Your task to perform on an android device: Open settings on Google Maps Image 0: 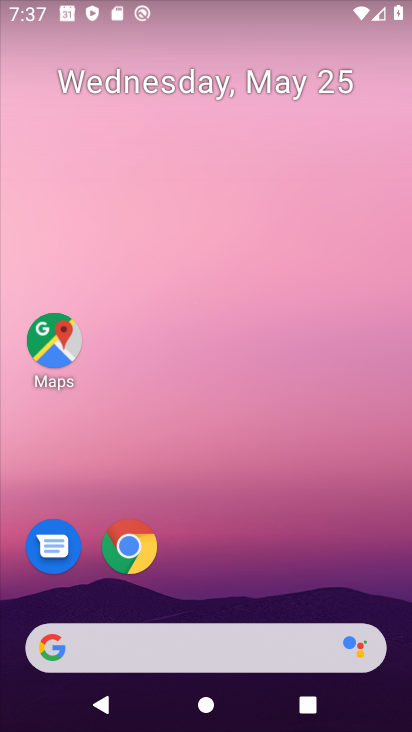
Step 0: drag from (390, 596) to (396, 291)
Your task to perform on an android device: Open settings on Google Maps Image 1: 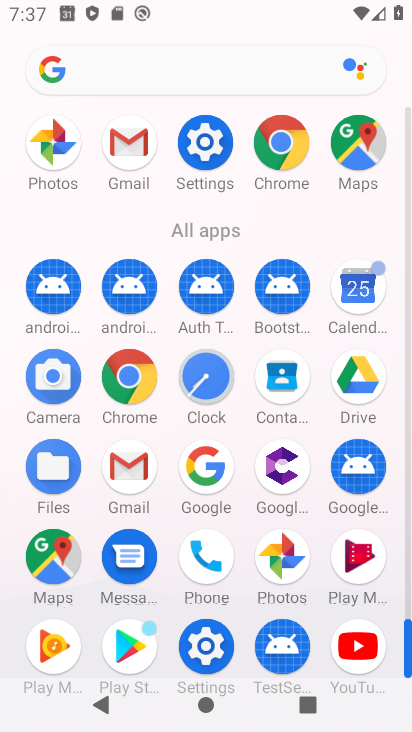
Step 1: click (64, 582)
Your task to perform on an android device: Open settings on Google Maps Image 2: 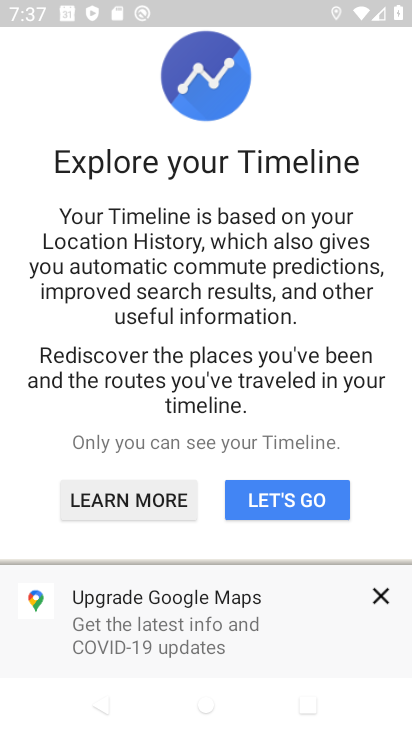
Step 2: click (390, 598)
Your task to perform on an android device: Open settings on Google Maps Image 3: 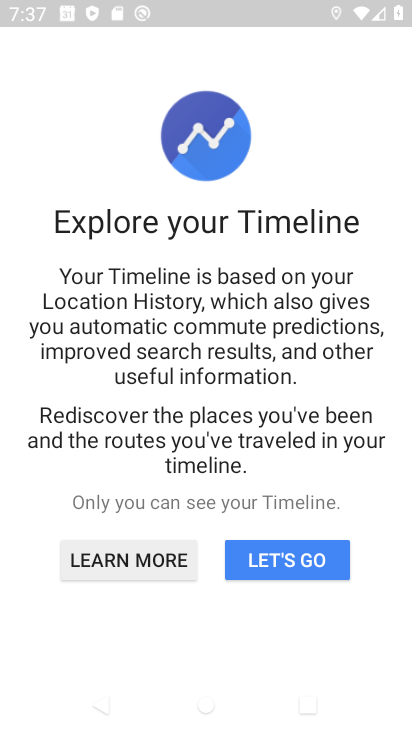
Step 3: press back button
Your task to perform on an android device: Open settings on Google Maps Image 4: 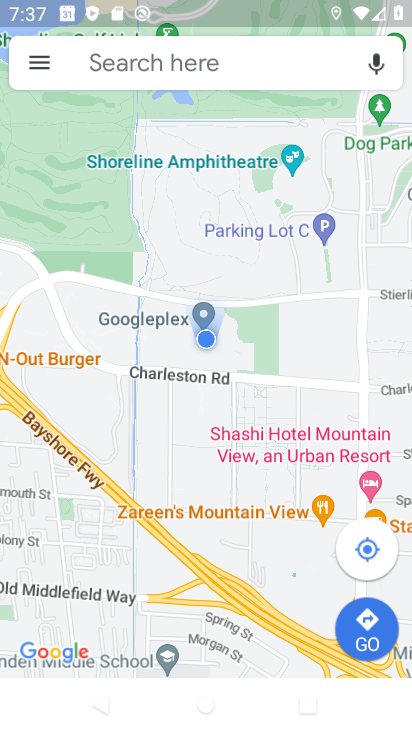
Step 4: click (38, 73)
Your task to perform on an android device: Open settings on Google Maps Image 5: 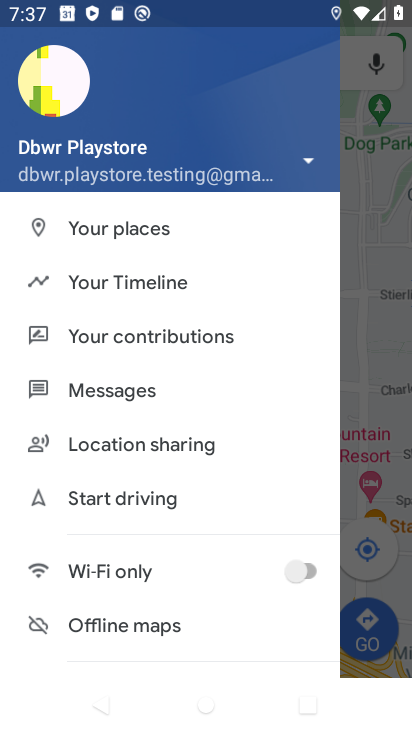
Step 5: drag from (276, 443) to (287, 379)
Your task to perform on an android device: Open settings on Google Maps Image 6: 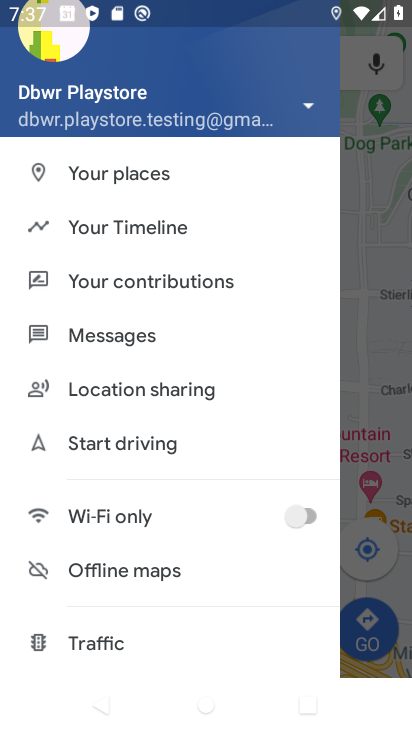
Step 6: drag from (267, 455) to (268, 373)
Your task to perform on an android device: Open settings on Google Maps Image 7: 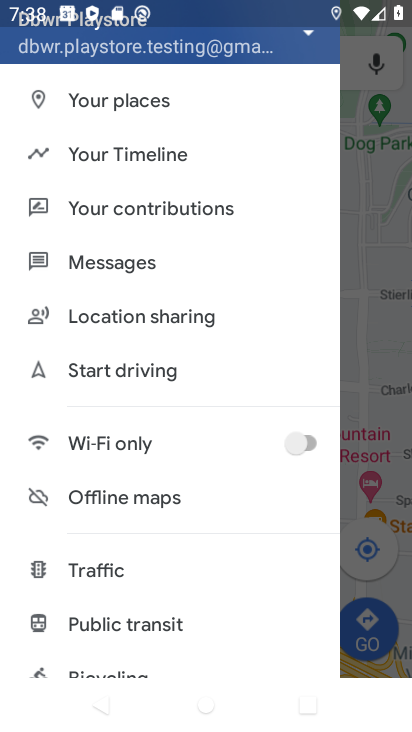
Step 7: drag from (249, 454) to (249, 373)
Your task to perform on an android device: Open settings on Google Maps Image 8: 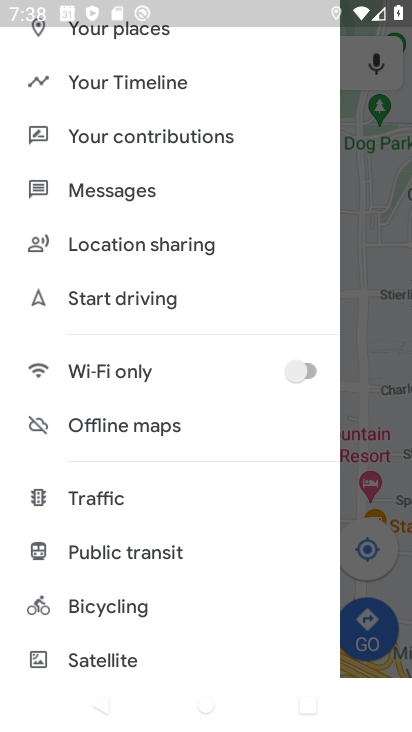
Step 8: drag from (243, 469) to (237, 392)
Your task to perform on an android device: Open settings on Google Maps Image 9: 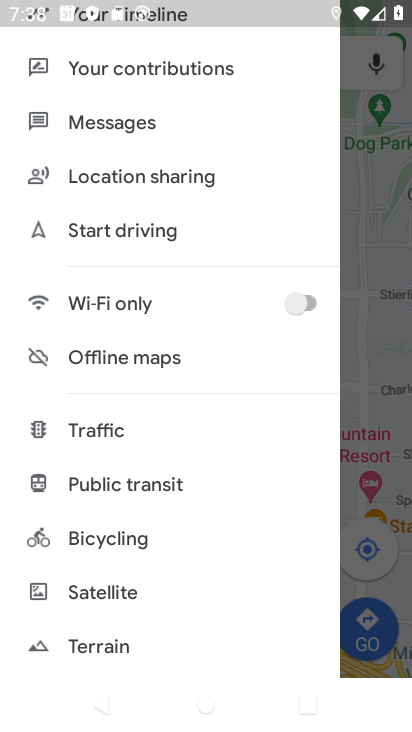
Step 9: drag from (222, 467) to (228, 383)
Your task to perform on an android device: Open settings on Google Maps Image 10: 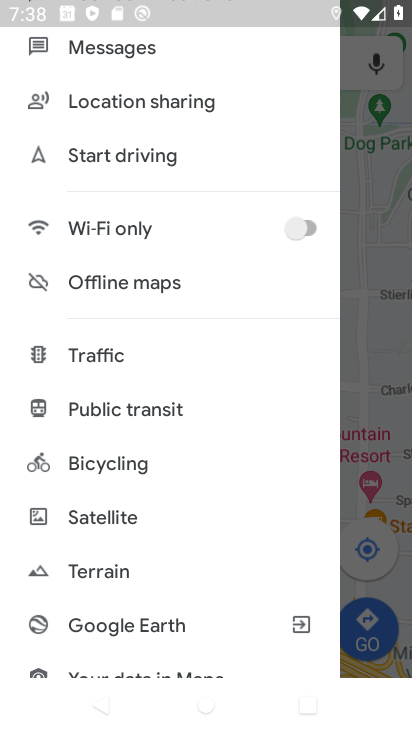
Step 10: drag from (217, 488) to (227, 416)
Your task to perform on an android device: Open settings on Google Maps Image 11: 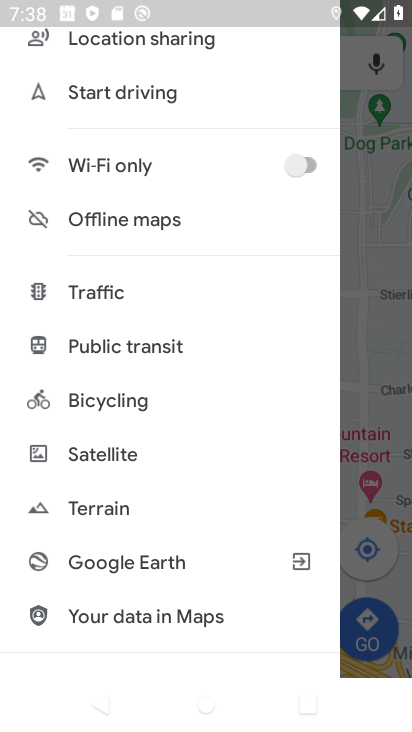
Step 11: drag from (207, 504) to (218, 441)
Your task to perform on an android device: Open settings on Google Maps Image 12: 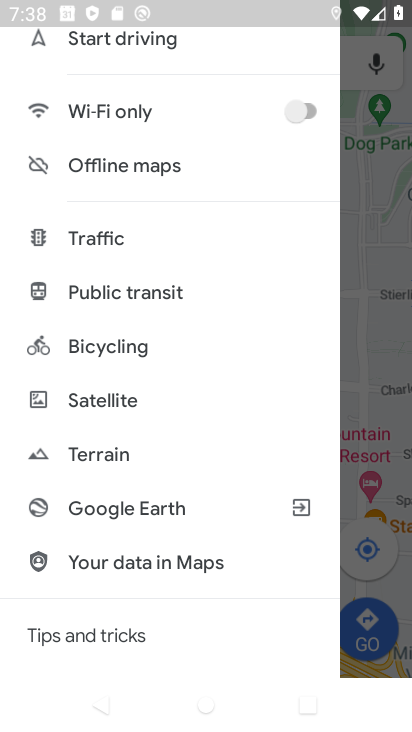
Step 12: drag from (235, 522) to (230, 435)
Your task to perform on an android device: Open settings on Google Maps Image 13: 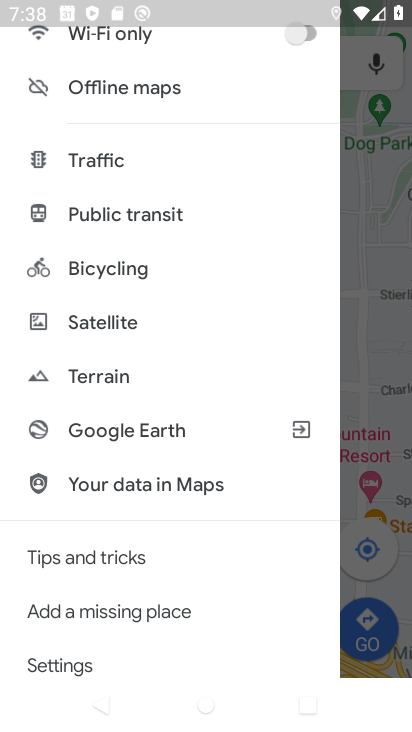
Step 13: drag from (234, 512) to (242, 450)
Your task to perform on an android device: Open settings on Google Maps Image 14: 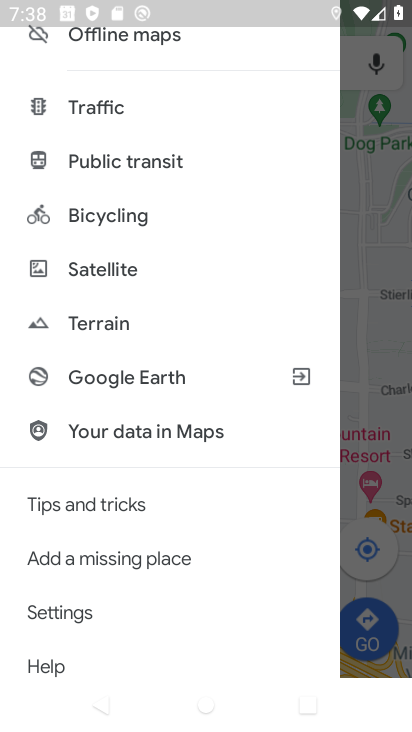
Step 14: drag from (248, 505) to (261, 412)
Your task to perform on an android device: Open settings on Google Maps Image 15: 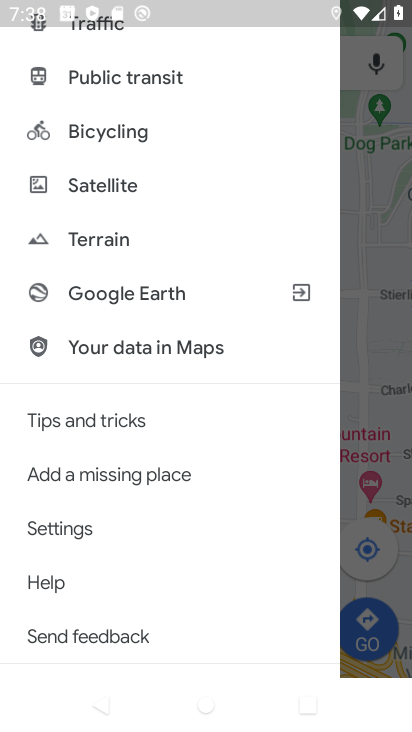
Step 15: drag from (252, 513) to (257, 400)
Your task to perform on an android device: Open settings on Google Maps Image 16: 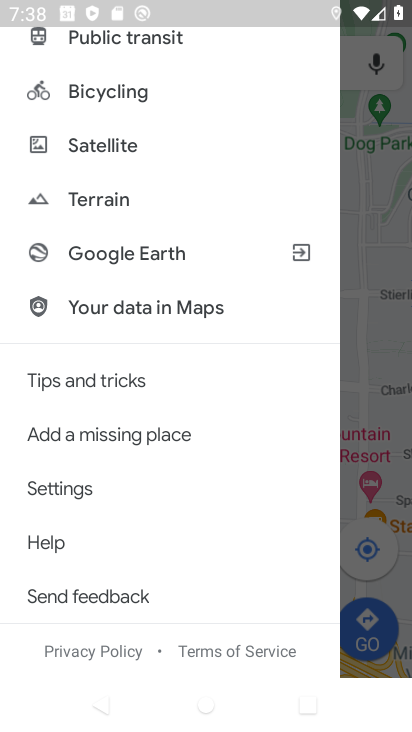
Step 16: click (103, 490)
Your task to perform on an android device: Open settings on Google Maps Image 17: 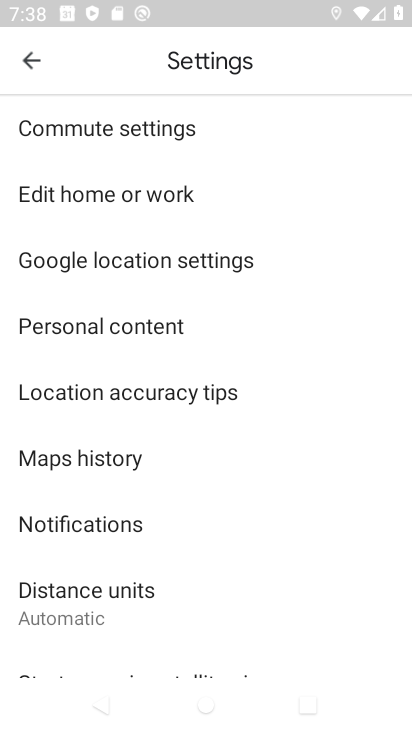
Step 17: task complete